Your task to perform on an android device: turn off location history Image 0: 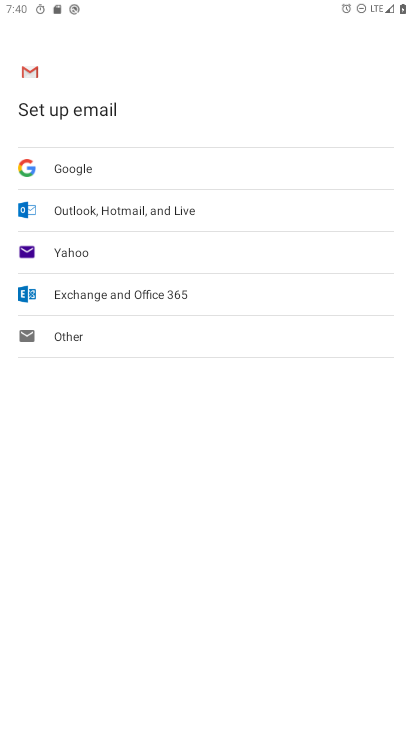
Step 0: press home button
Your task to perform on an android device: turn off location history Image 1: 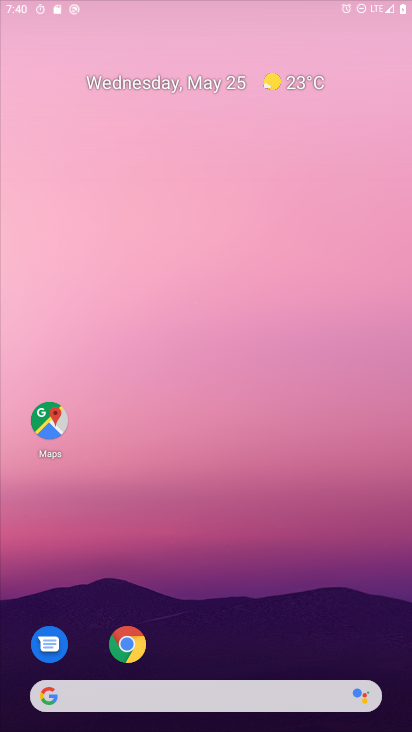
Step 1: drag from (340, 618) to (297, 53)
Your task to perform on an android device: turn off location history Image 2: 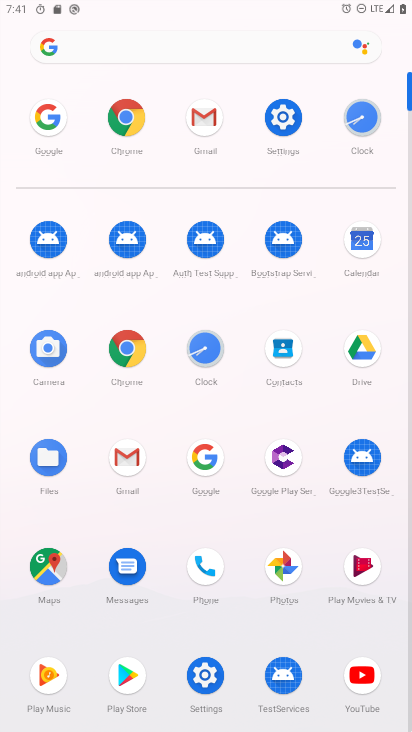
Step 2: click (204, 667)
Your task to perform on an android device: turn off location history Image 3: 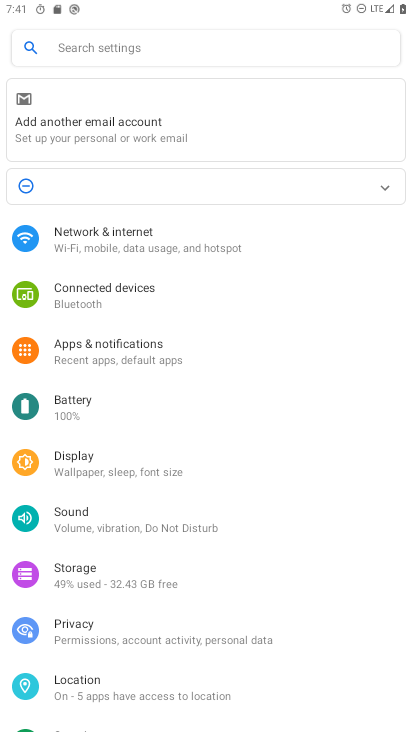
Step 3: click (73, 677)
Your task to perform on an android device: turn off location history Image 4: 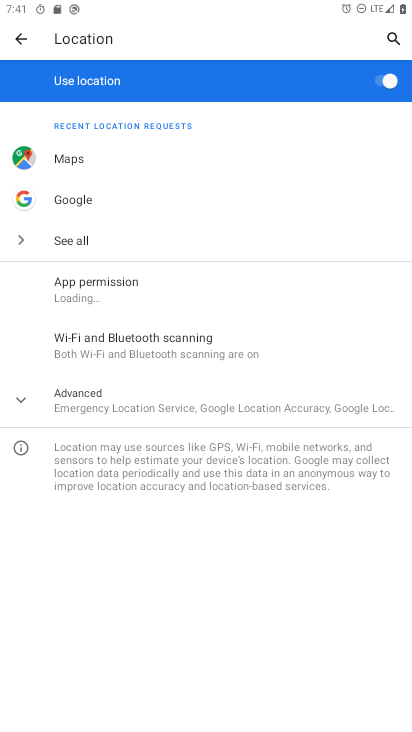
Step 4: click (156, 414)
Your task to perform on an android device: turn off location history Image 5: 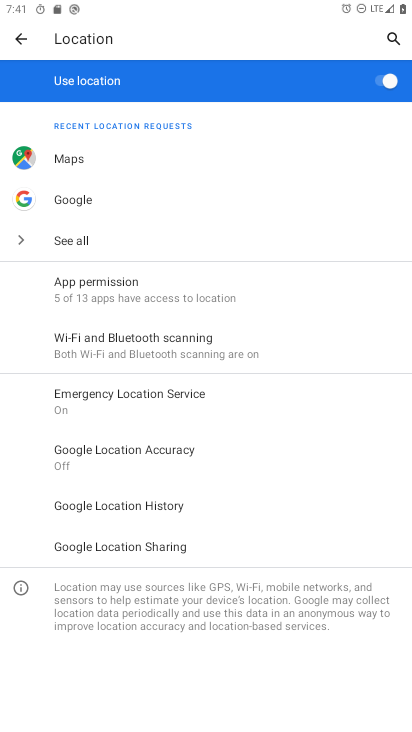
Step 5: click (156, 516)
Your task to perform on an android device: turn off location history Image 6: 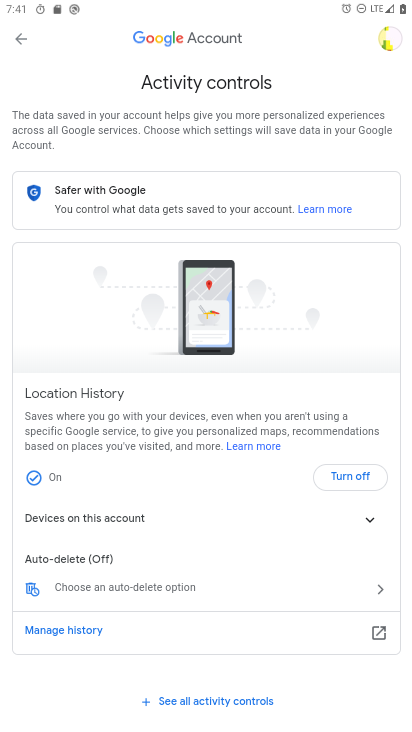
Step 6: task complete